Your task to perform on an android device: check android version Image 0: 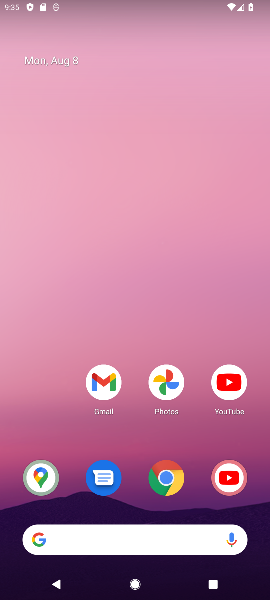
Step 0: drag from (163, 520) to (114, 113)
Your task to perform on an android device: check android version Image 1: 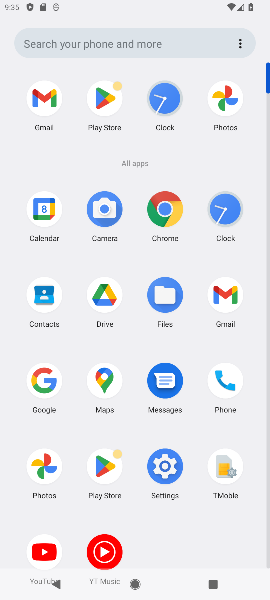
Step 1: click (162, 478)
Your task to perform on an android device: check android version Image 2: 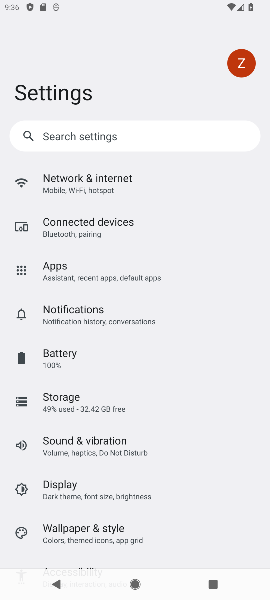
Step 2: drag from (65, 439) to (33, 63)
Your task to perform on an android device: check android version Image 3: 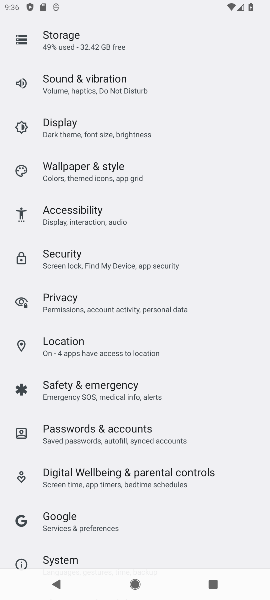
Step 3: drag from (40, 524) to (29, 148)
Your task to perform on an android device: check android version Image 4: 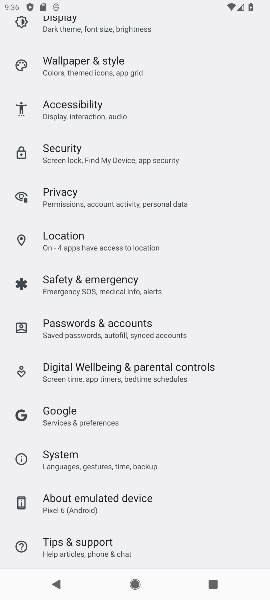
Step 4: drag from (86, 524) to (62, 258)
Your task to perform on an android device: check android version Image 5: 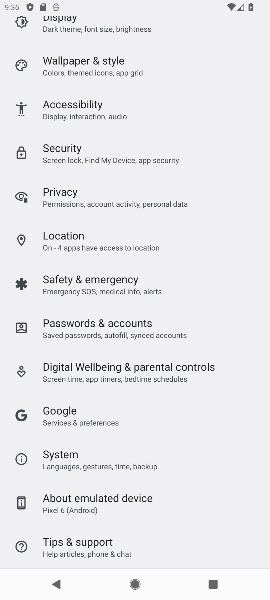
Step 5: click (91, 487)
Your task to perform on an android device: check android version Image 6: 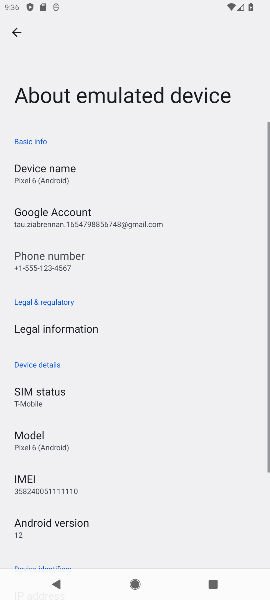
Step 6: click (76, 525)
Your task to perform on an android device: check android version Image 7: 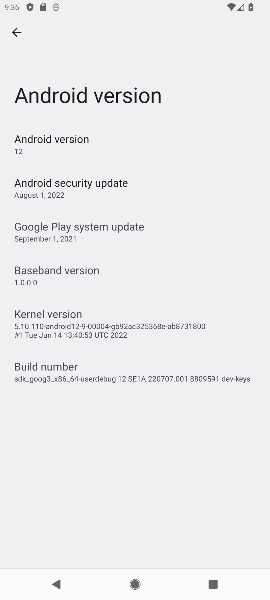
Step 7: click (21, 149)
Your task to perform on an android device: check android version Image 8: 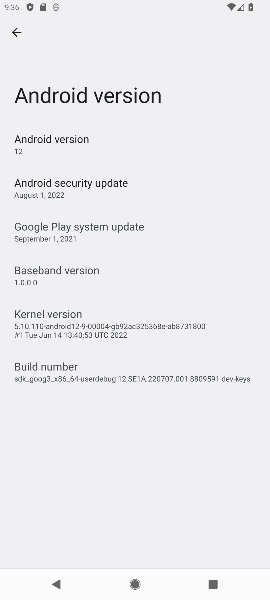
Step 8: task complete